Your task to perform on an android device: remove spam from my inbox in the gmail app Image 0: 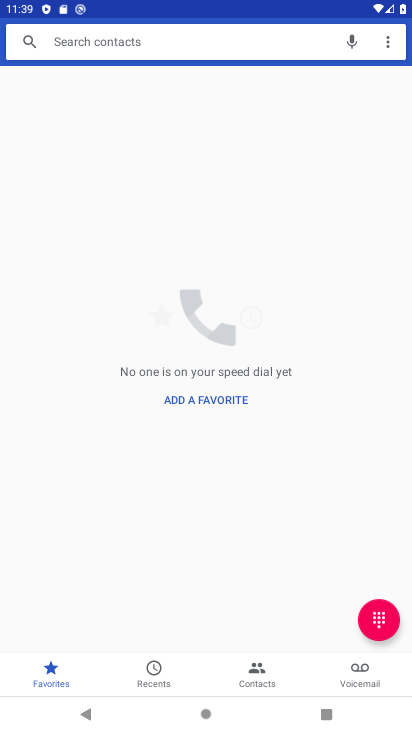
Step 0: press home button
Your task to perform on an android device: remove spam from my inbox in the gmail app Image 1: 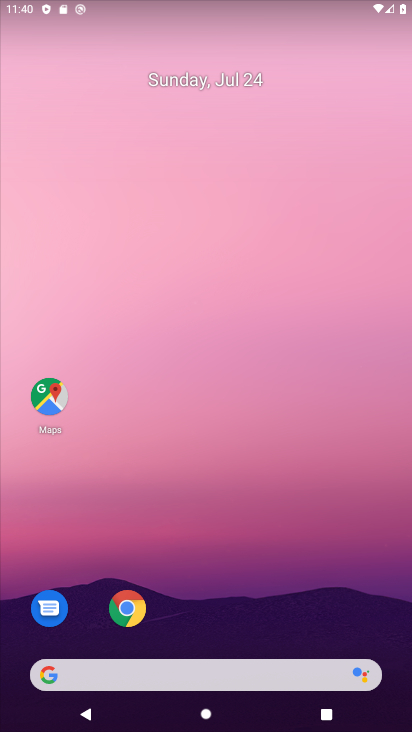
Step 1: drag from (55, 551) to (183, 193)
Your task to perform on an android device: remove spam from my inbox in the gmail app Image 2: 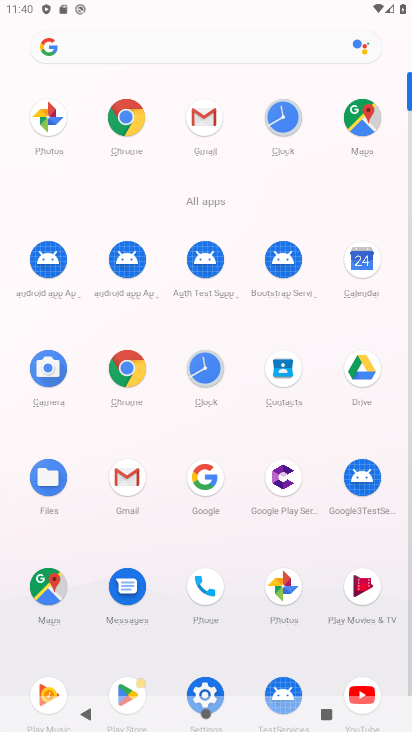
Step 2: click (212, 120)
Your task to perform on an android device: remove spam from my inbox in the gmail app Image 3: 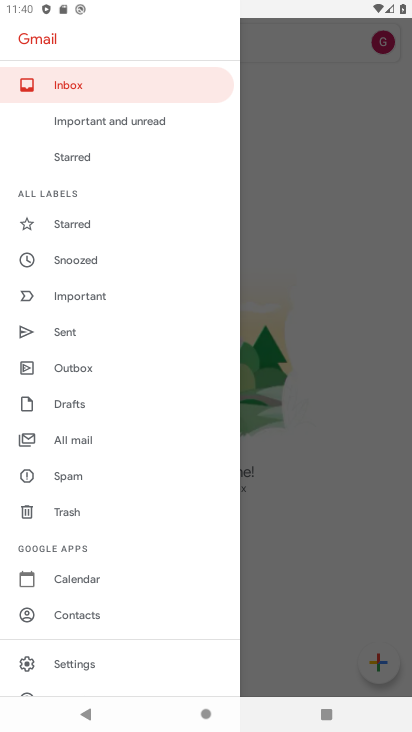
Step 3: click (35, 470)
Your task to perform on an android device: remove spam from my inbox in the gmail app Image 4: 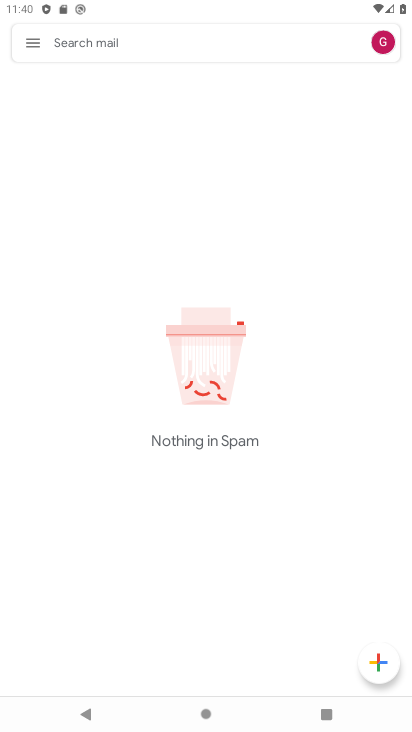
Step 4: task complete